Your task to perform on an android device: Clear all items from cart on newegg.com. Image 0: 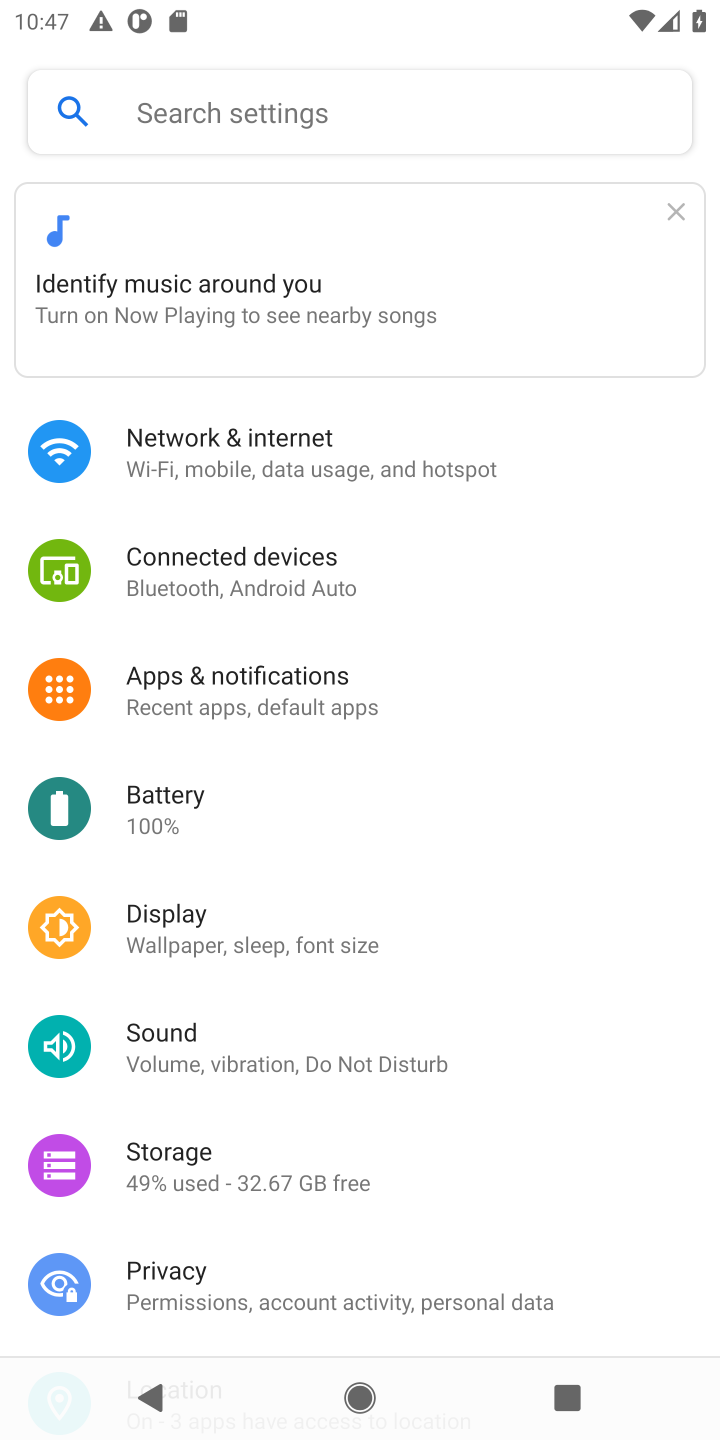
Step 0: press home button
Your task to perform on an android device: Clear all items from cart on newegg.com. Image 1: 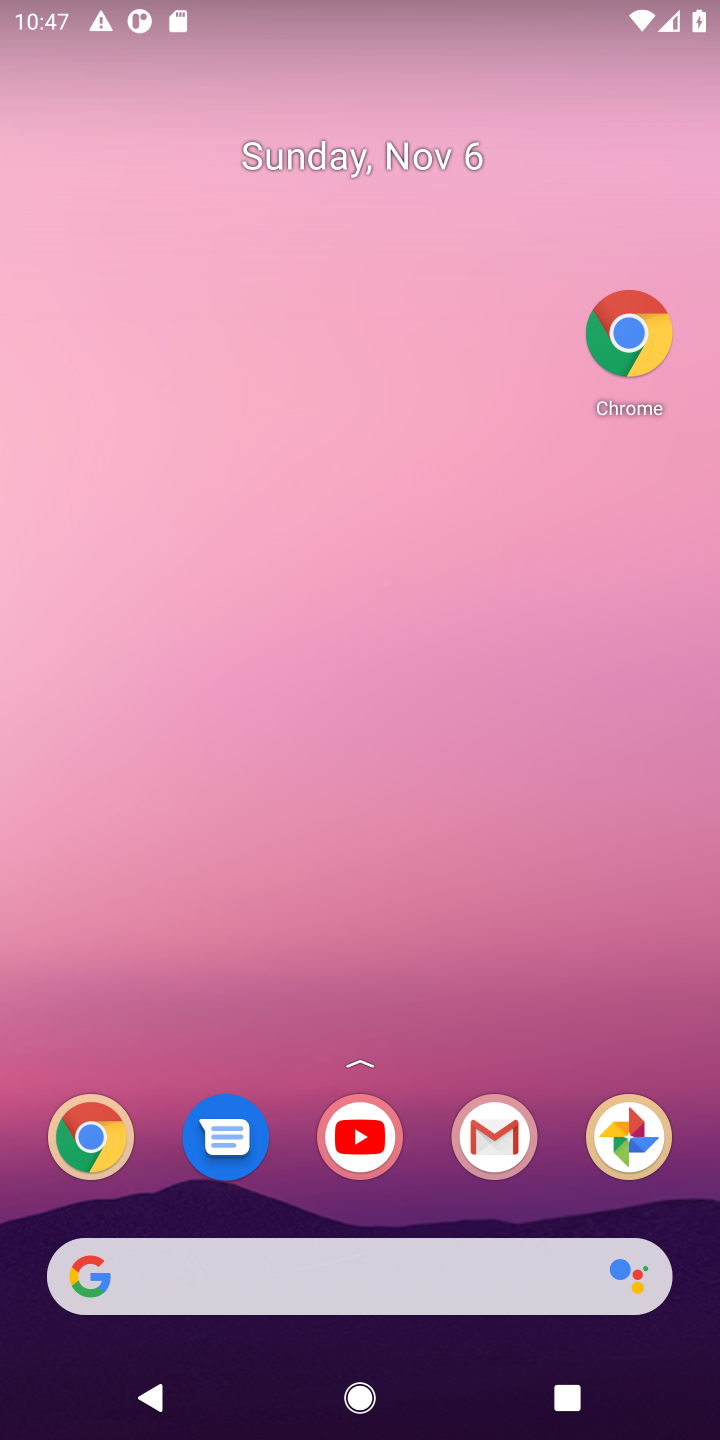
Step 1: drag from (368, 938) to (332, 15)
Your task to perform on an android device: Clear all items from cart on newegg.com. Image 2: 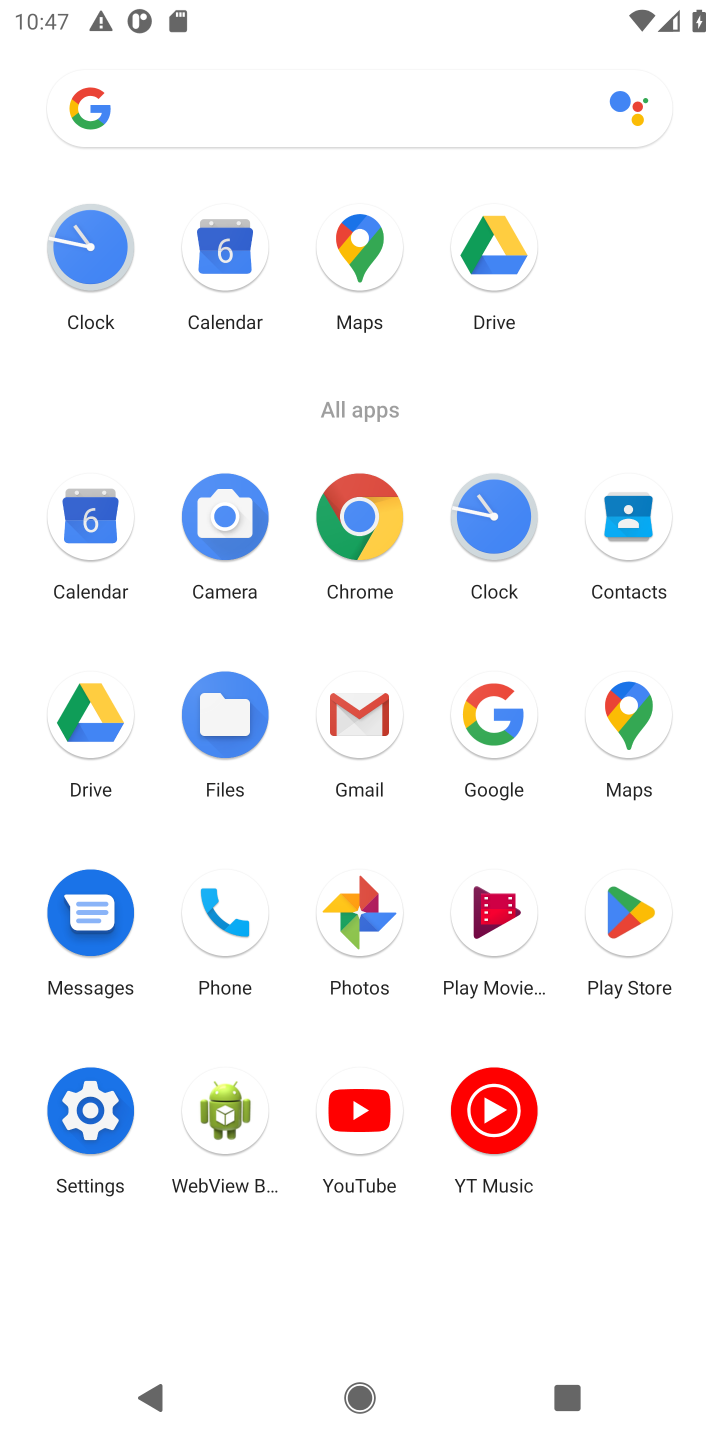
Step 2: click (358, 526)
Your task to perform on an android device: Clear all items from cart on newegg.com. Image 3: 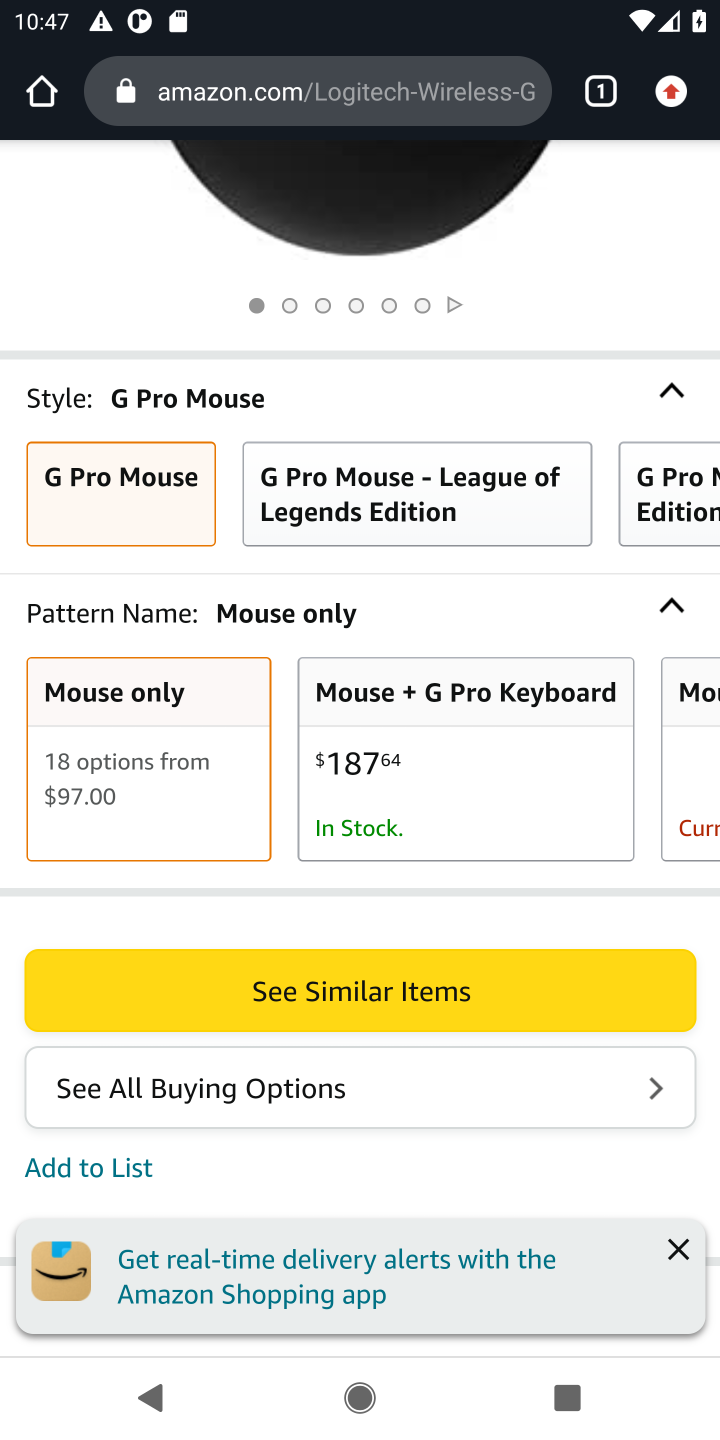
Step 3: click (367, 85)
Your task to perform on an android device: Clear all items from cart on newegg.com. Image 4: 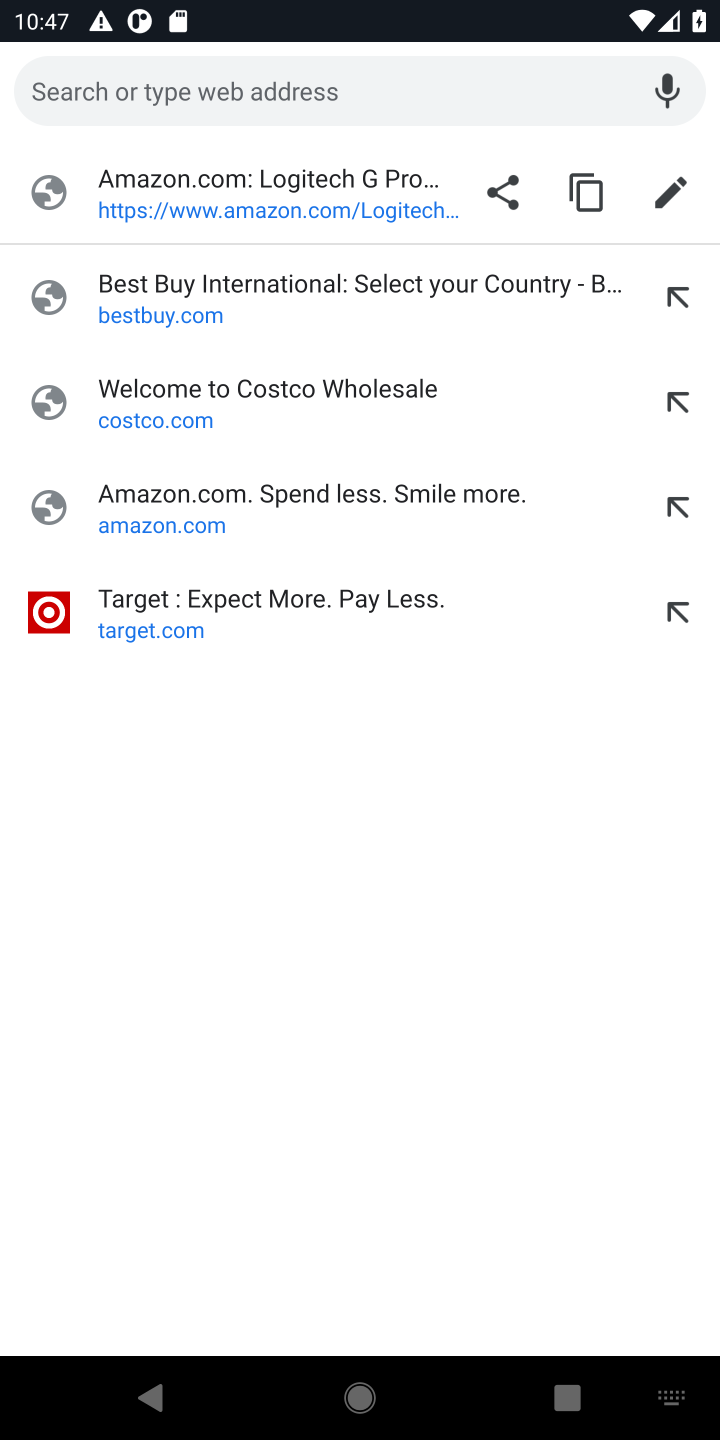
Step 4: type "newegg.com"
Your task to perform on an android device: Clear all items from cart on newegg.com. Image 5: 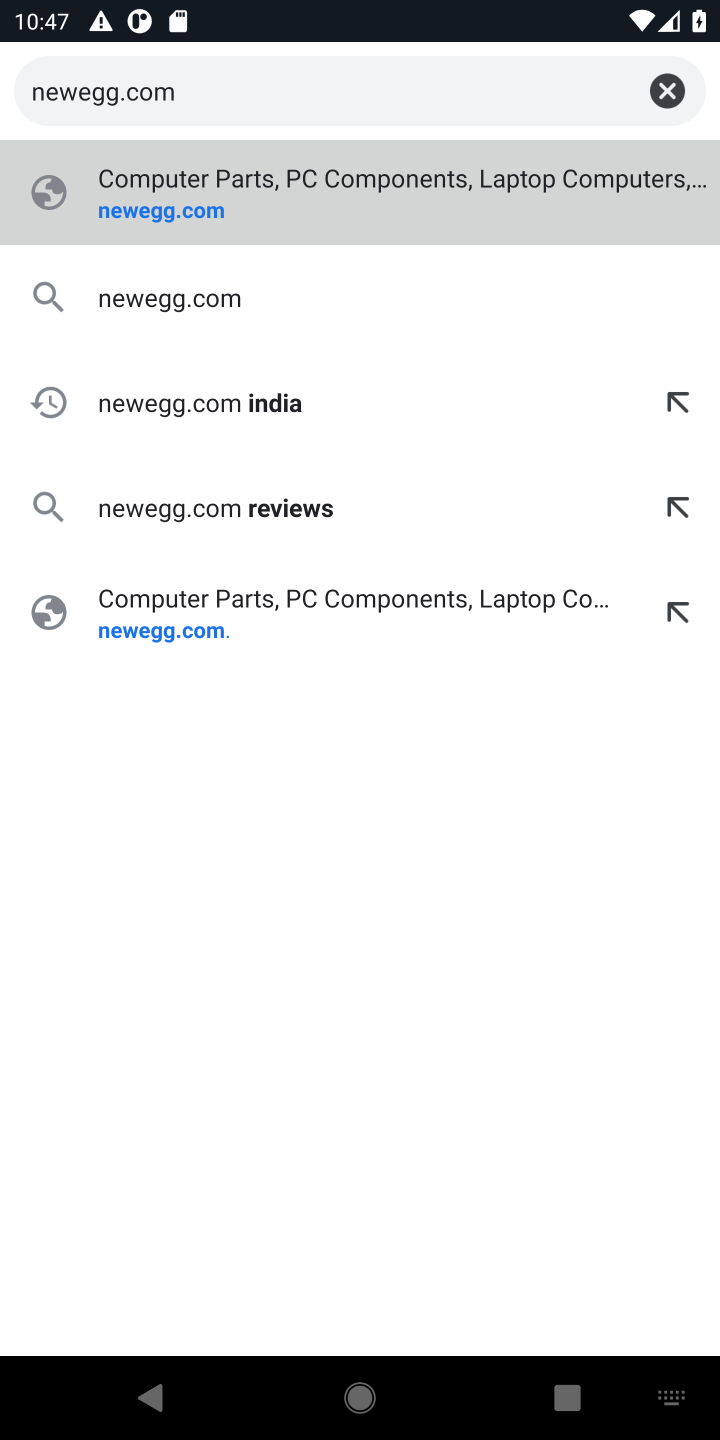
Step 5: press enter
Your task to perform on an android device: Clear all items from cart on newegg.com. Image 6: 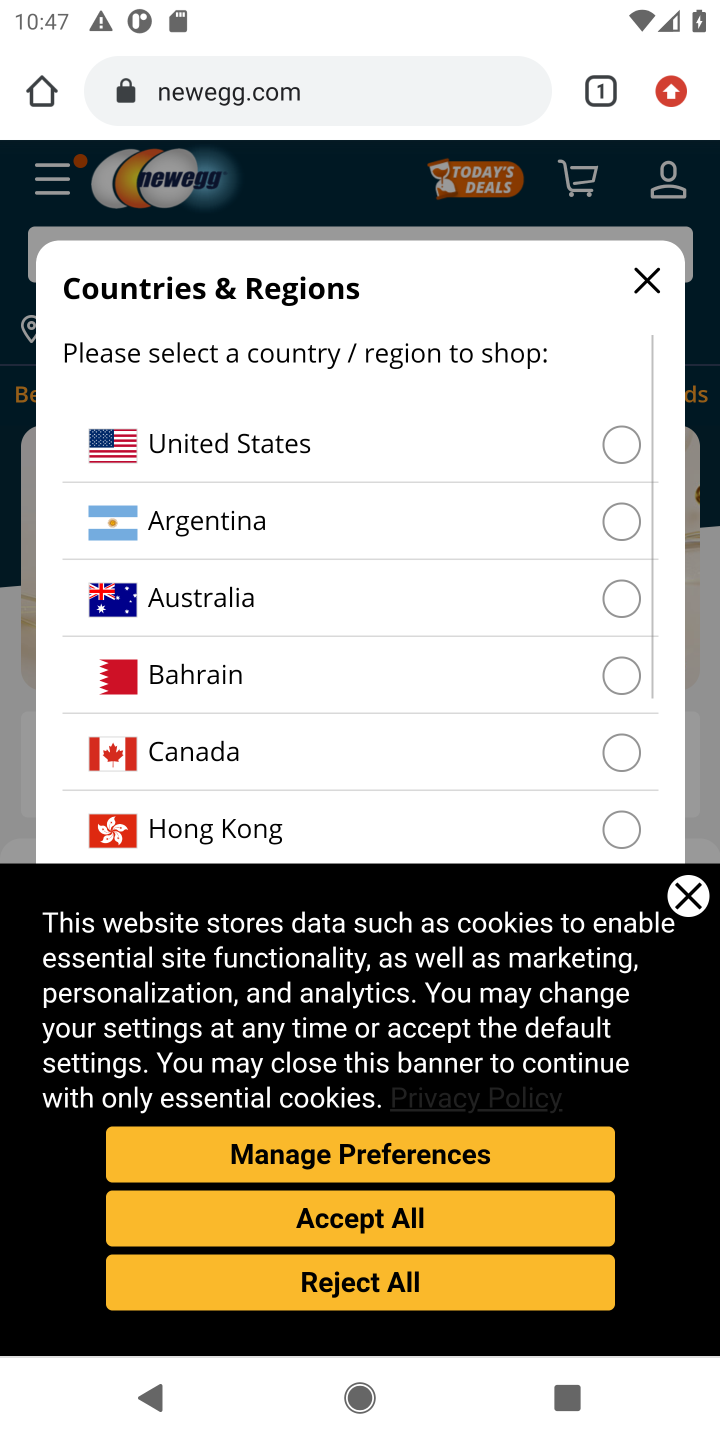
Step 6: click (642, 278)
Your task to perform on an android device: Clear all items from cart on newegg.com. Image 7: 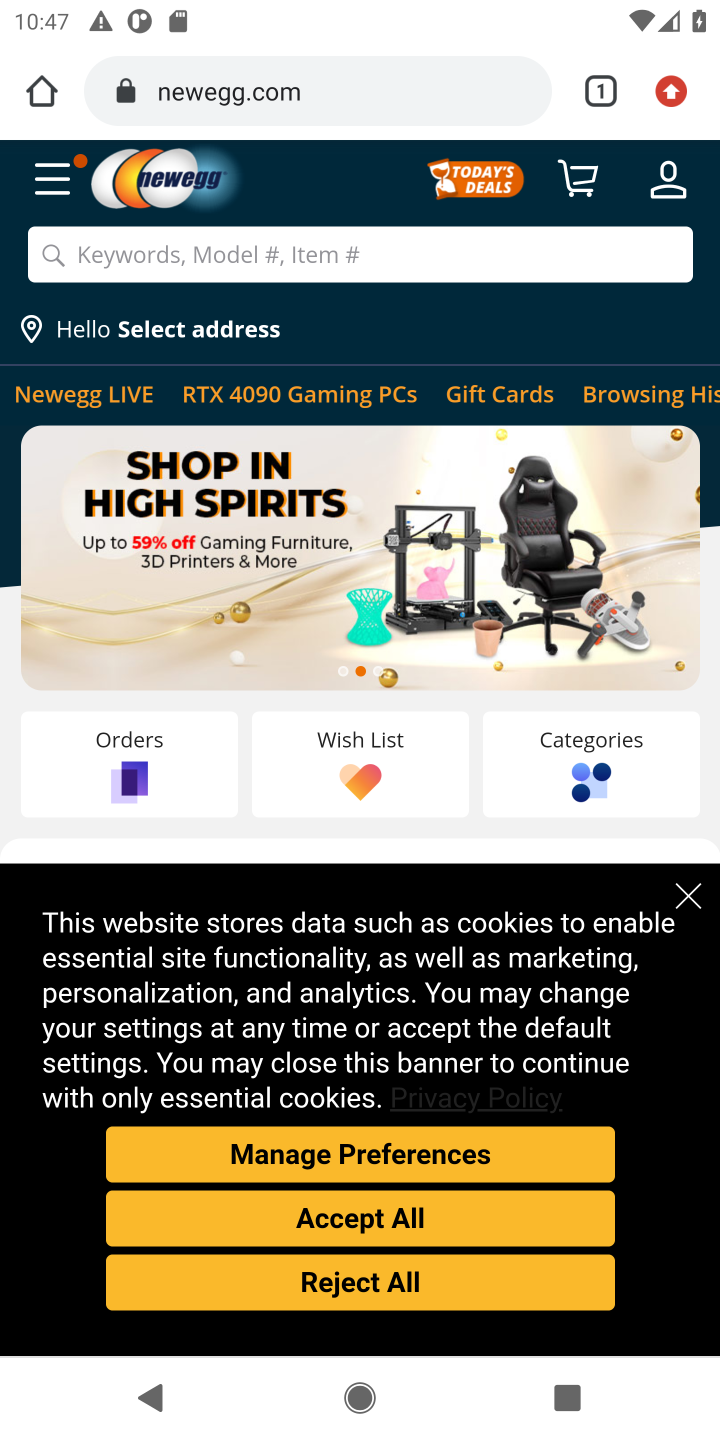
Step 7: click (578, 182)
Your task to perform on an android device: Clear all items from cart on newegg.com. Image 8: 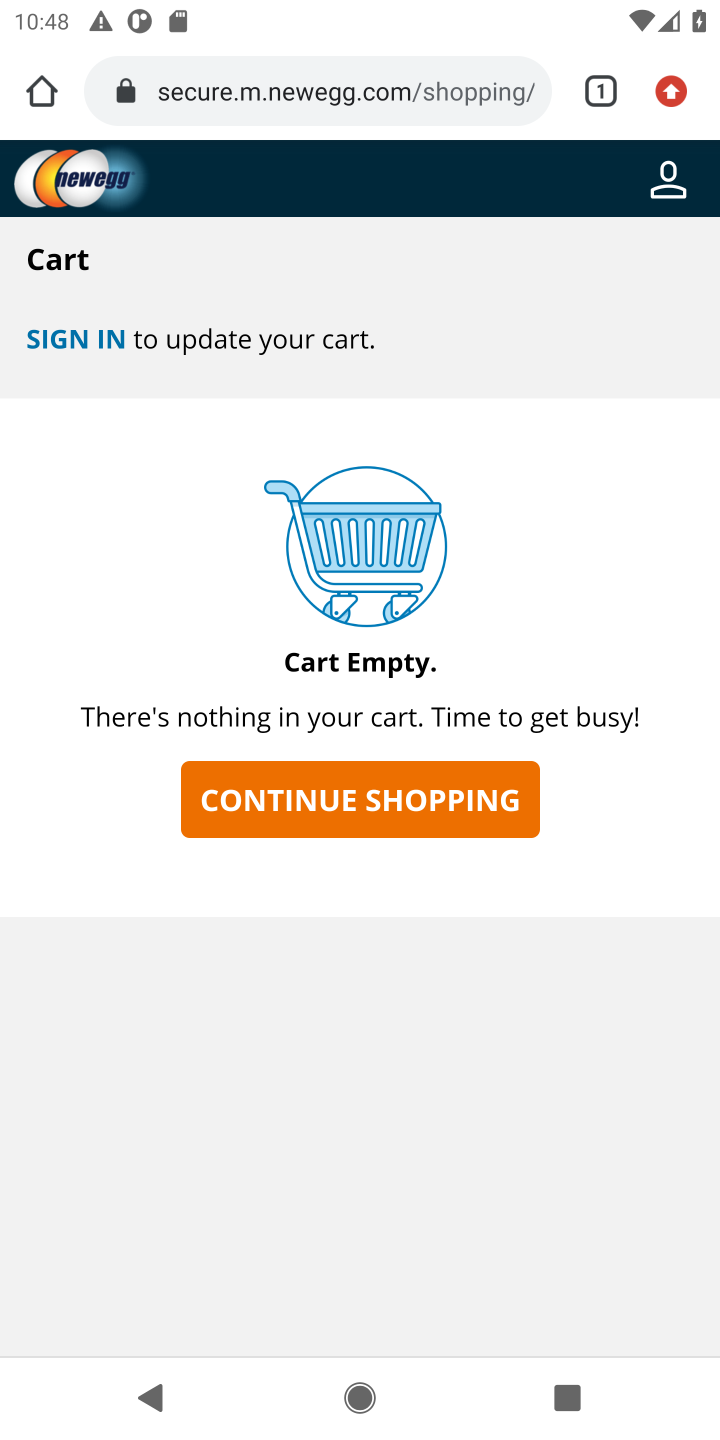
Step 8: task complete